Your task to perform on an android device: turn on the 24-hour format for clock Image 0: 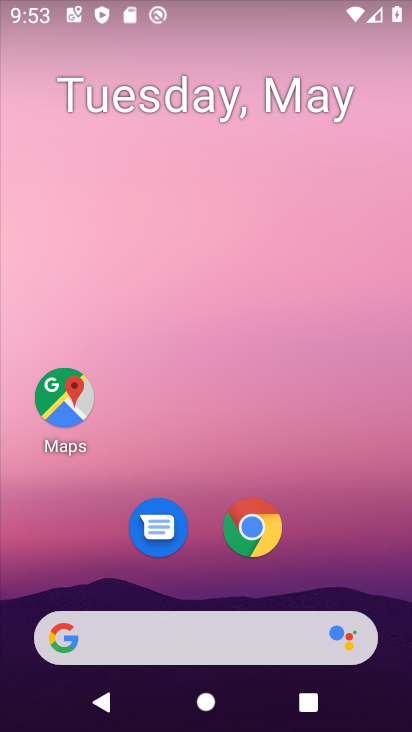
Step 0: drag from (177, 585) to (161, 148)
Your task to perform on an android device: turn on the 24-hour format for clock Image 1: 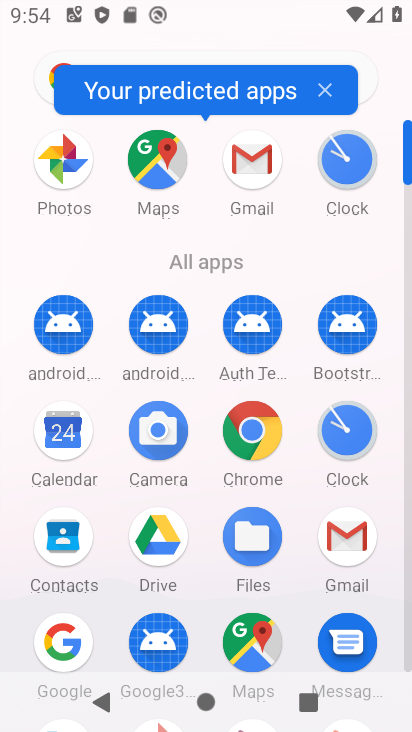
Step 1: click (332, 166)
Your task to perform on an android device: turn on the 24-hour format for clock Image 2: 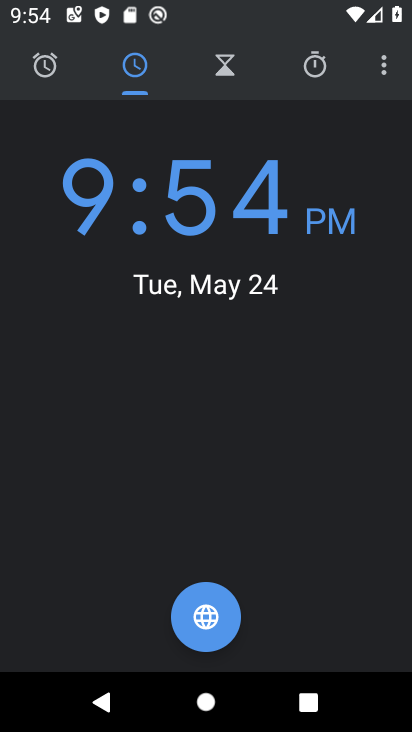
Step 2: click (367, 69)
Your task to perform on an android device: turn on the 24-hour format for clock Image 3: 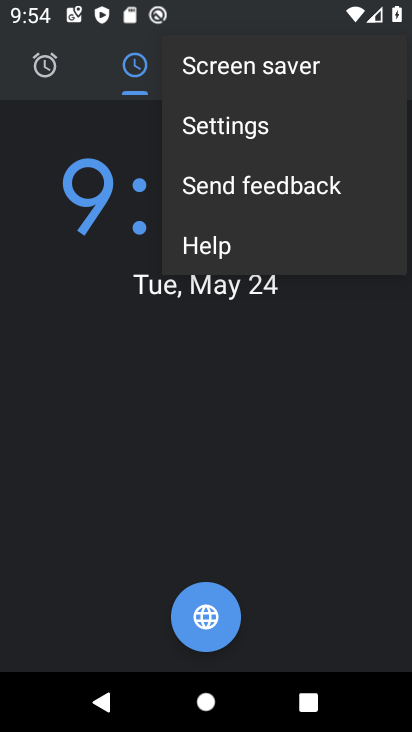
Step 3: click (259, 124)
Your task to perform on an android device: turn on the 24-hour format for clock Image 4: 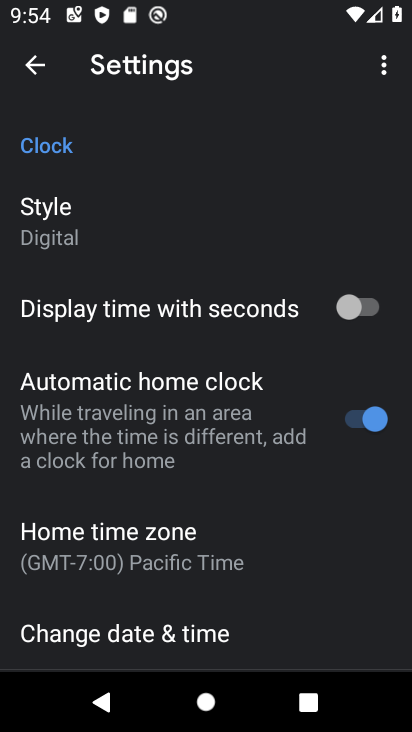
Step 4: click (233, 633)
Your task to perform on an android device: turn on the 24-hour format for clock Image 5: 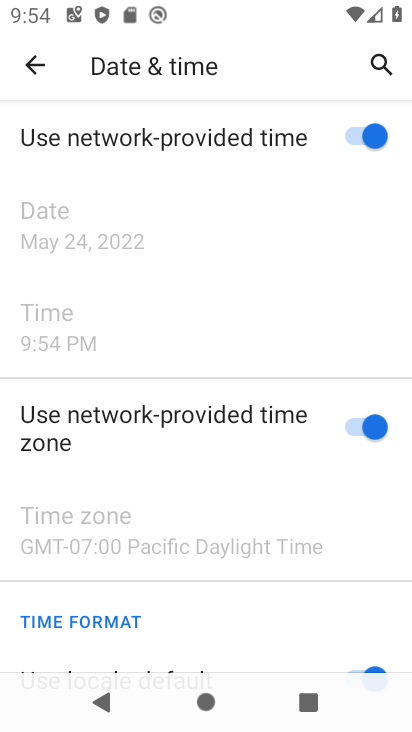
Step 5: drag from (173, 651) to (155, 285)
Your task to perform on an android device: turn on the 24-hour format for clock Image 6: 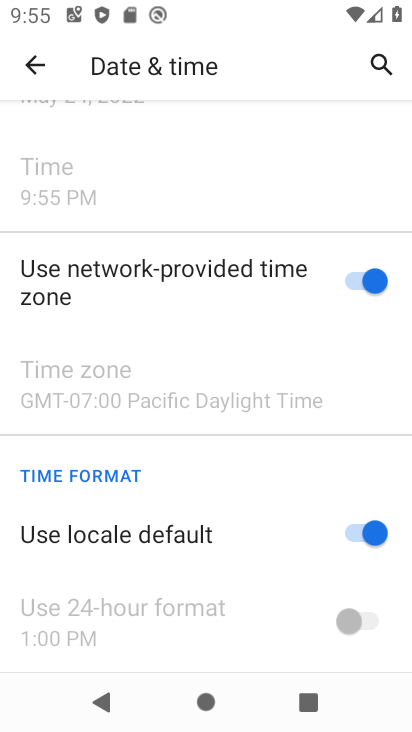
Step 6: click (350, 551)
Your task to perform on an android device: turn on the 24-hour format for clock Image 7: 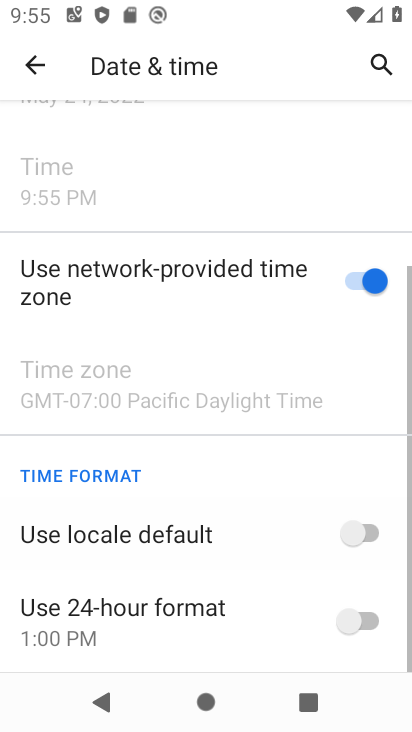
Step 7: click (361, 610)
Your task to perform on an android device: turn on the 24-hour format for clock Image 8: 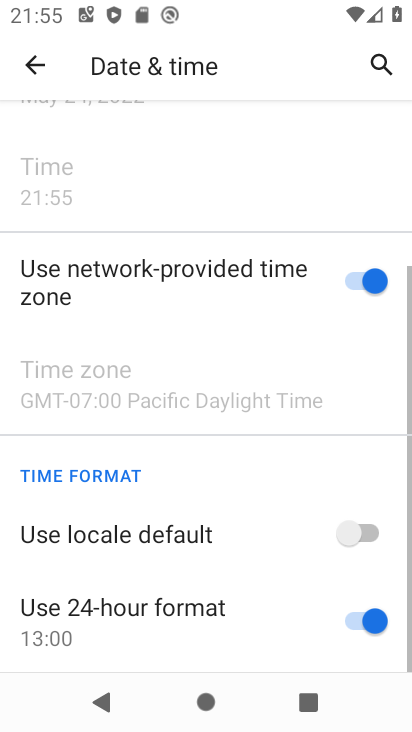
Step 8: task complete